Your task to perform on an android device: When is my next meeting? Image 0: 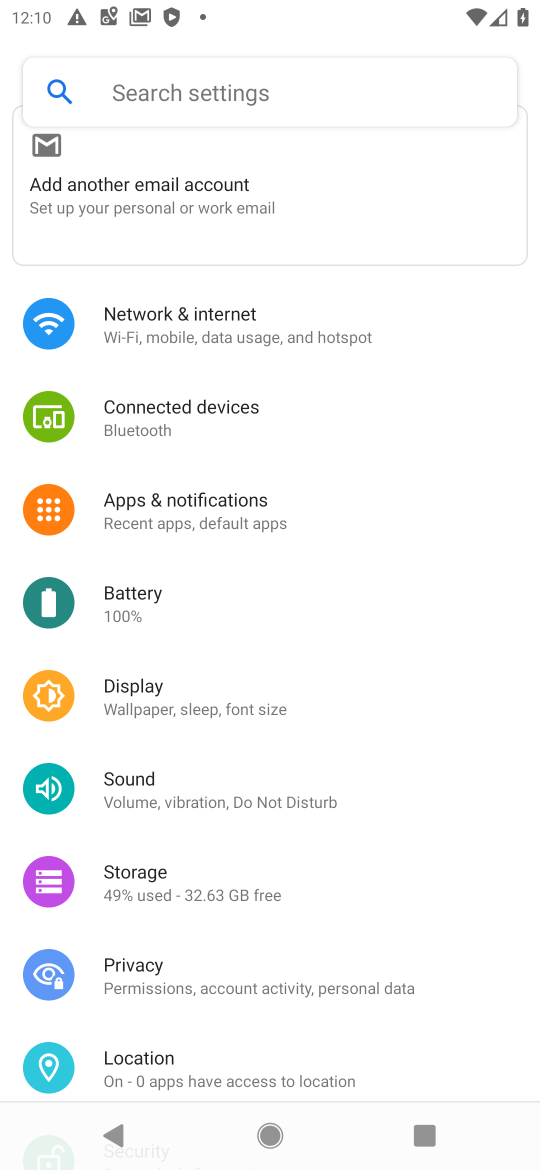
Step 0: press home button
Your task to perform on an android device: When is my next meeting? Image 1: 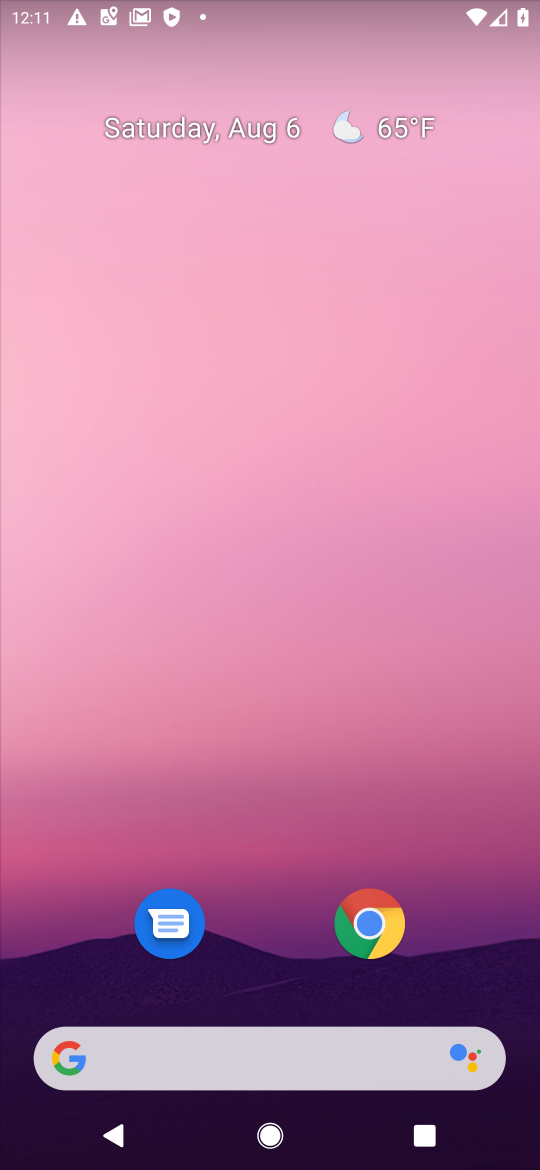
Step 1: drag from (357, 1019) to (355, 868)
Your task to perform on an android device: When is my next meeting? Image 2: 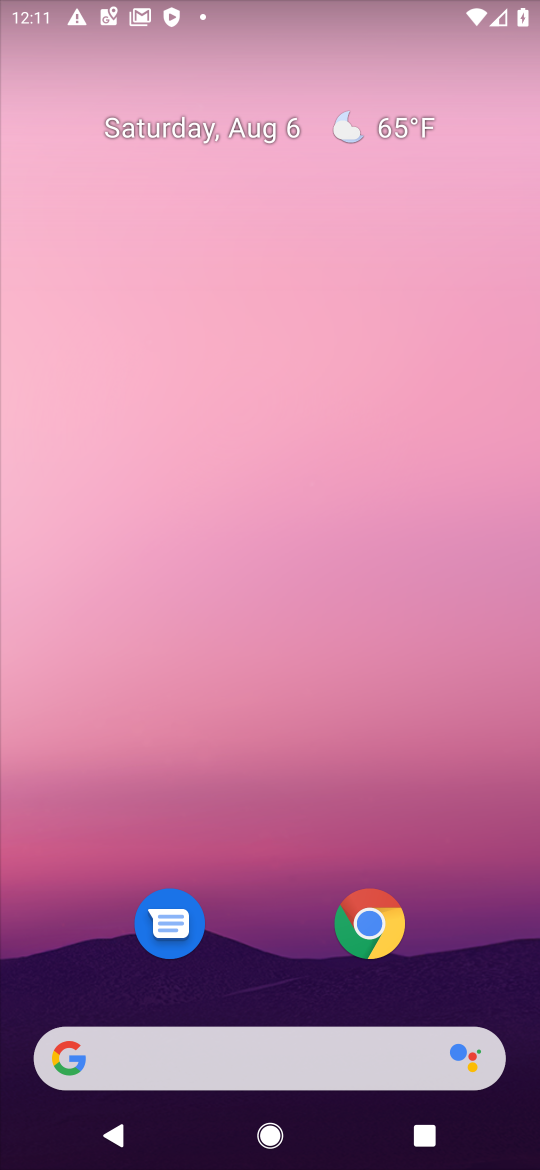
Step 2: drag from (332, 1050) to (365, 471)
Your task to perform on an android device: When is my next meeting? Image 3: 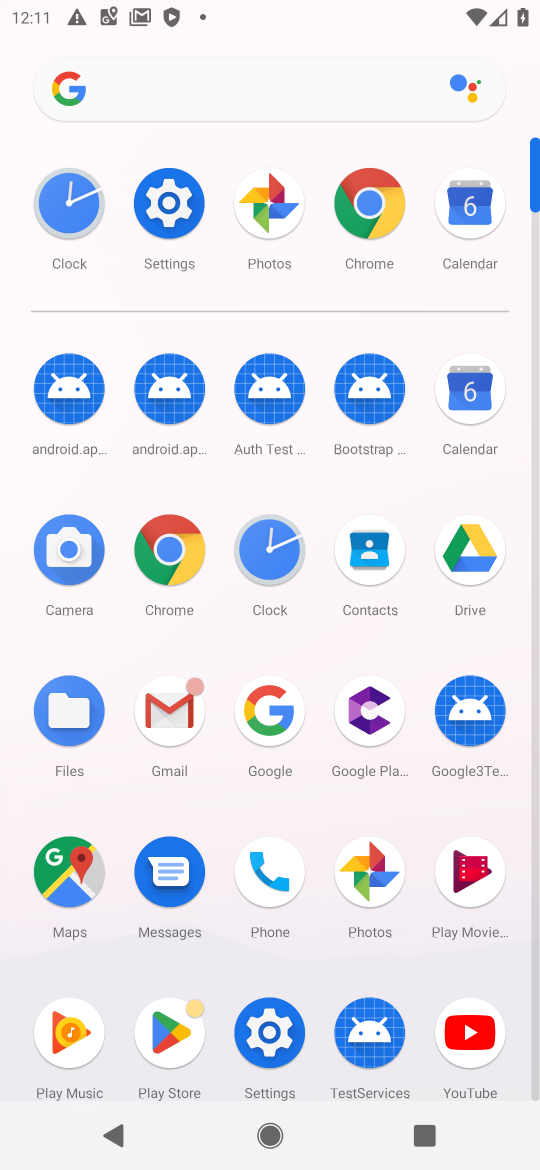
Step 3: click (192, 557)
Your task to perform on an android device: When is my next meeting? Image 4: 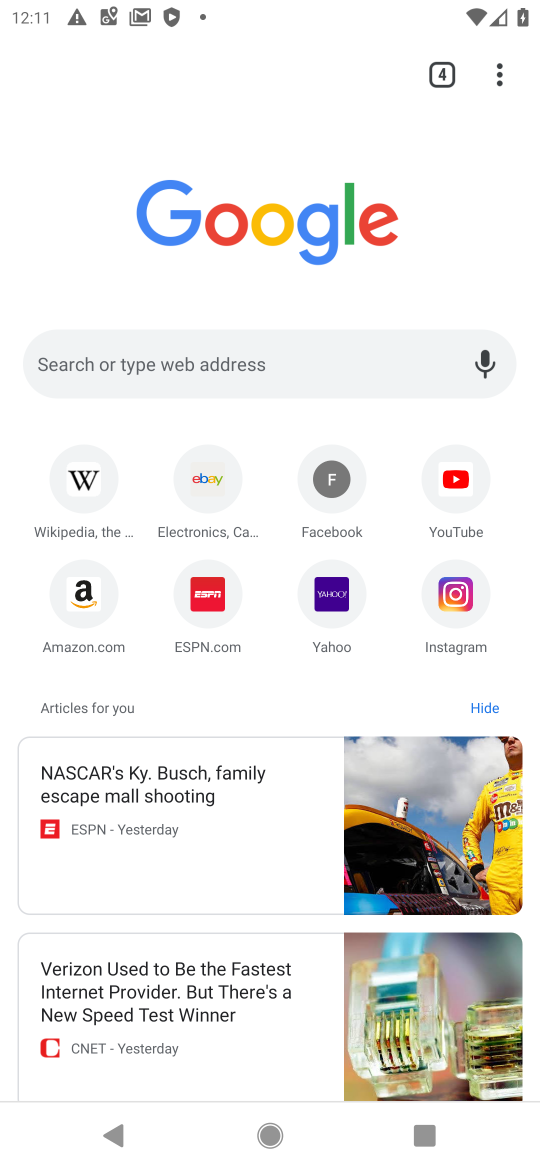
Step 4: press home button
Your task to perform on an android device: When is my next meeting? Image 5: 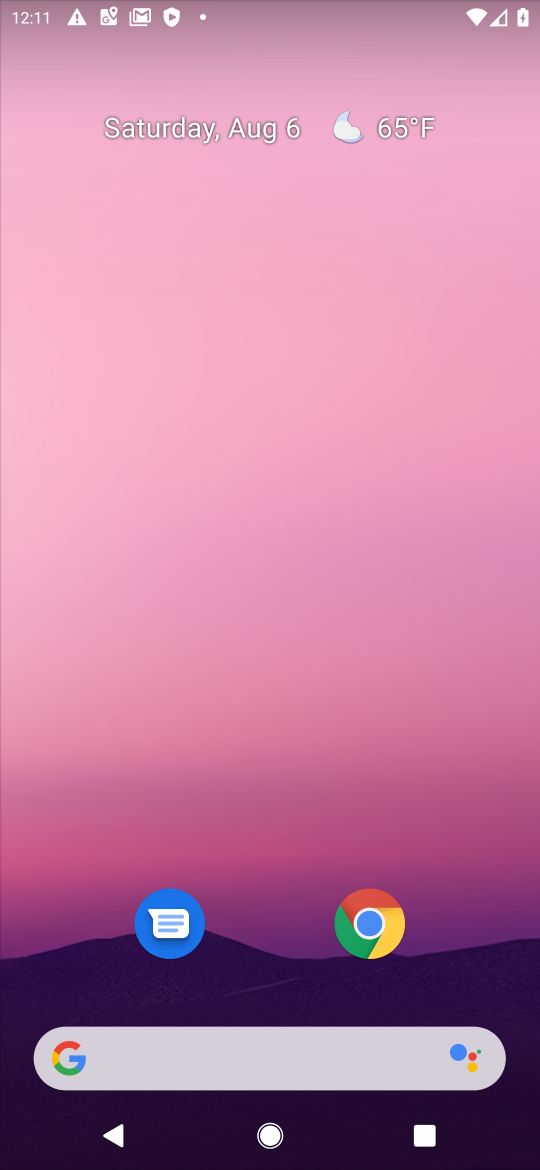
Step 5: drag from (327, 1033) to (395, 151)
Your task to perform on an android device: When is my next meeting? Image 6: 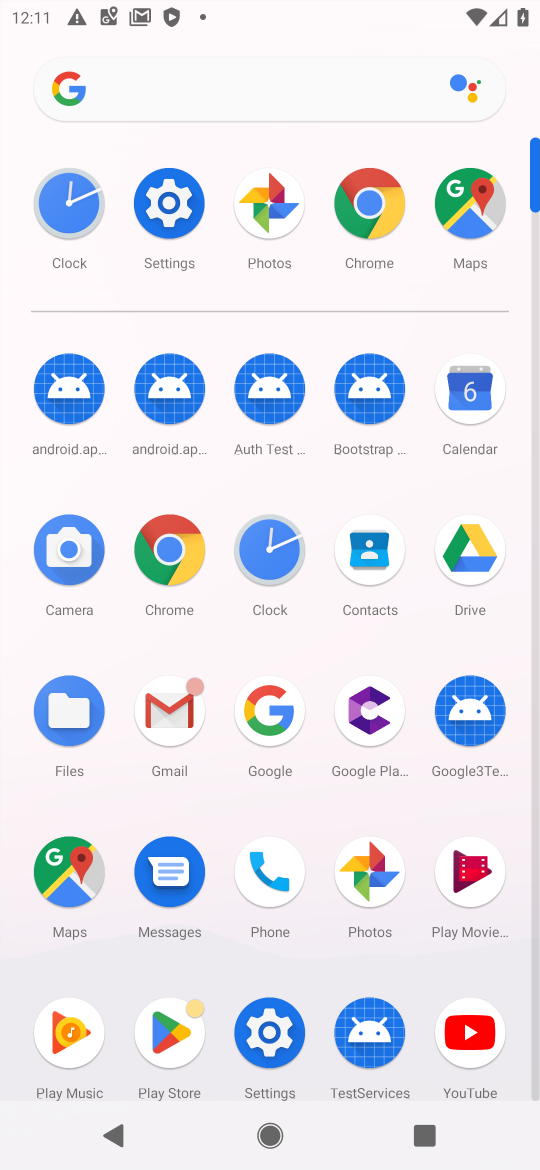
Step 6: click (457, 386)
Your task to perform on an android device: When is my next meeting? Image 7: 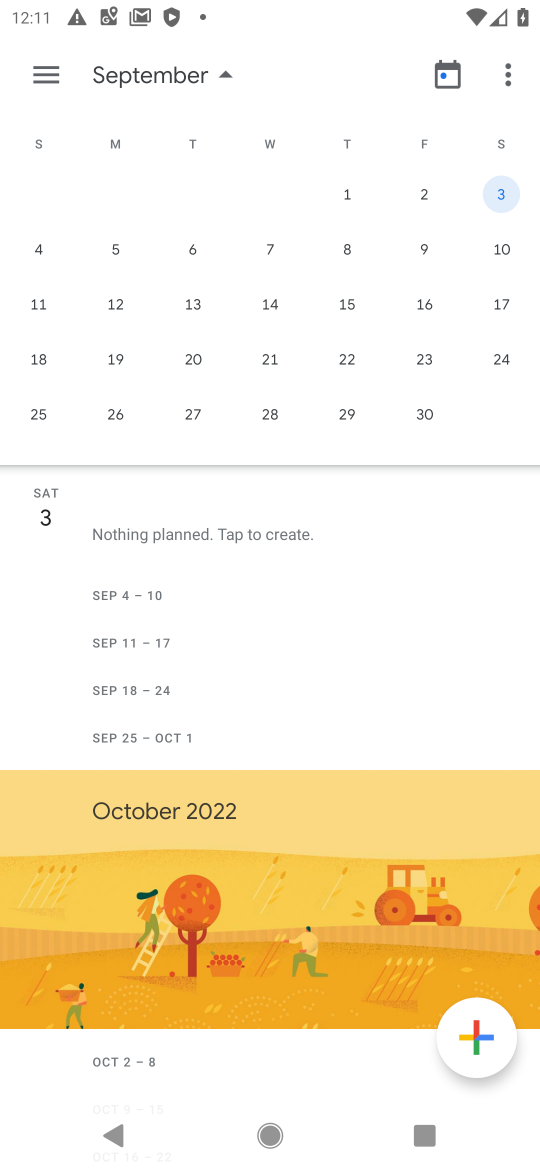
Step 7: click (27, 232)
Your task to perform on an android device: When is my next meeting? Image 8: 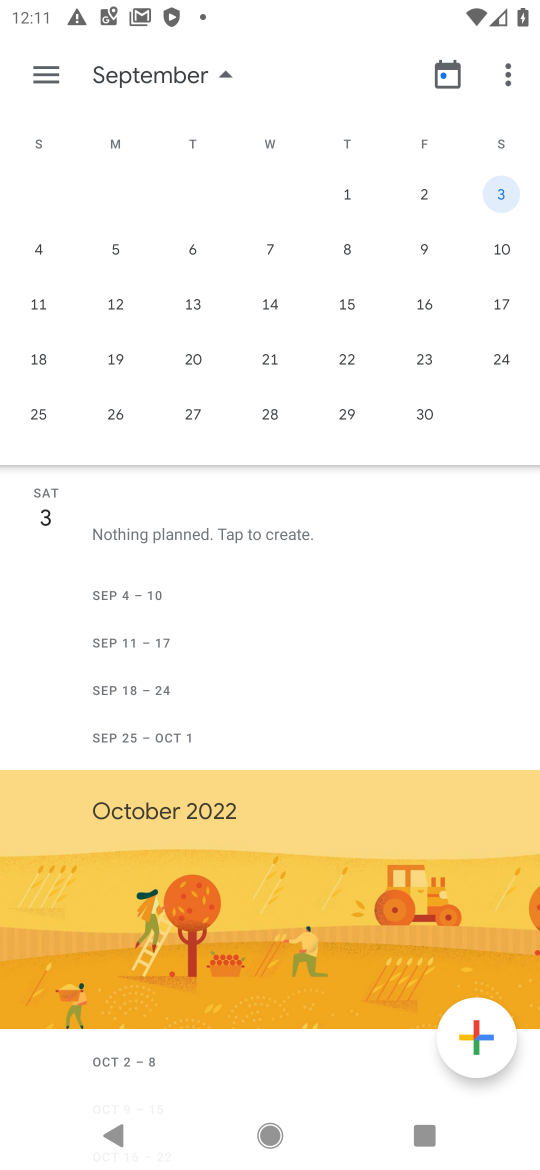
Step 8: click (42, 250)
Your task to perform on an android device: When is my next meeting? Image 9: 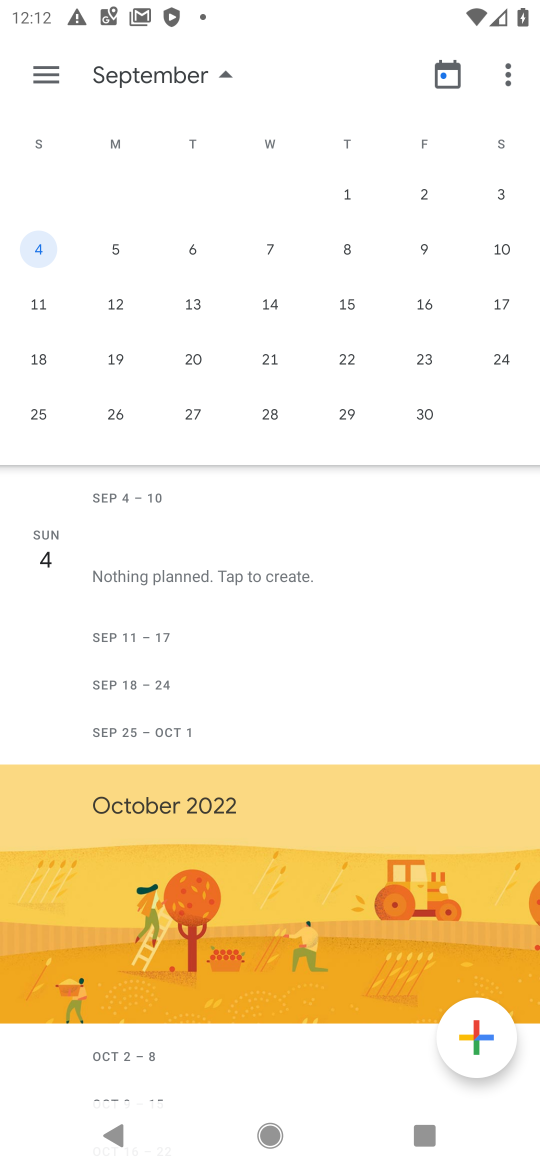
Step 9: press home button
Your task to perform on an android device: When is my next meeting? Image 10: 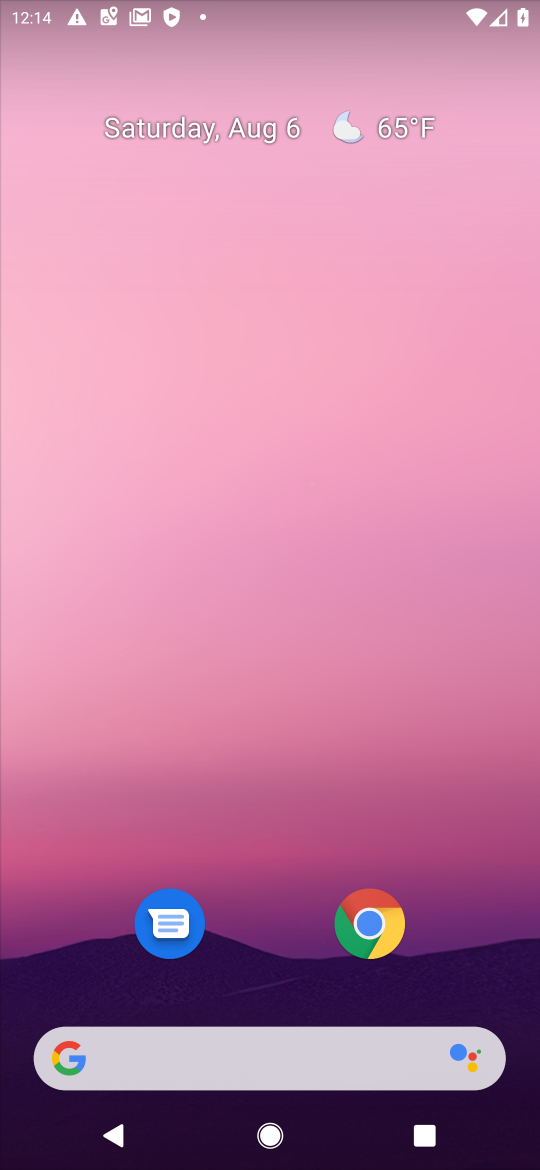
Step 10: drag from (276, 1046) to (254, 15)
Your task to perform on an android device: When is my next meeting? Image 11: 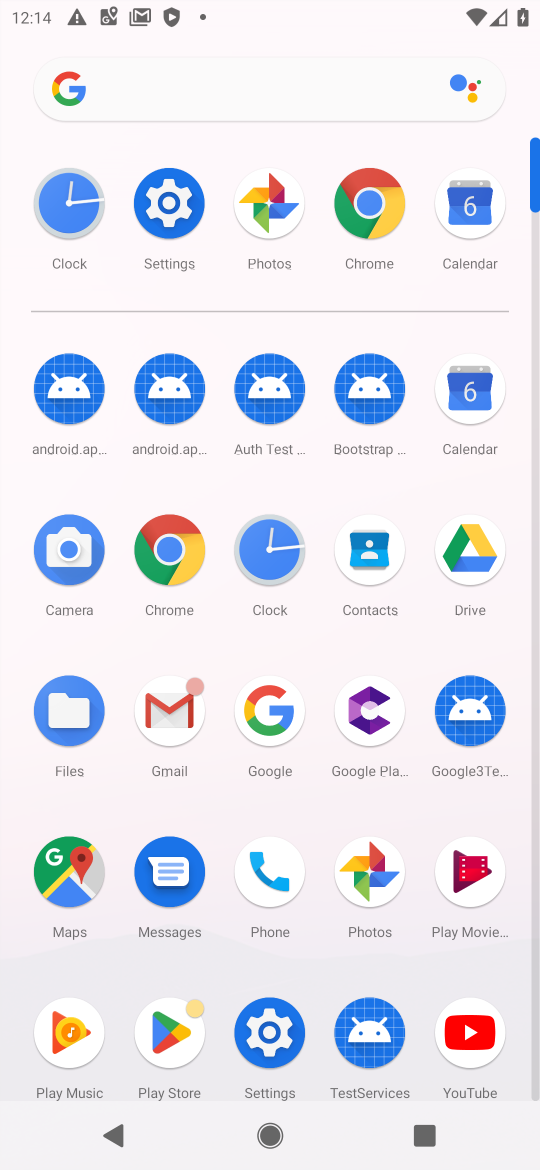
Step 11: click (472, 399)
Your task to perform on an android device: When is my next meeting? Image 12: 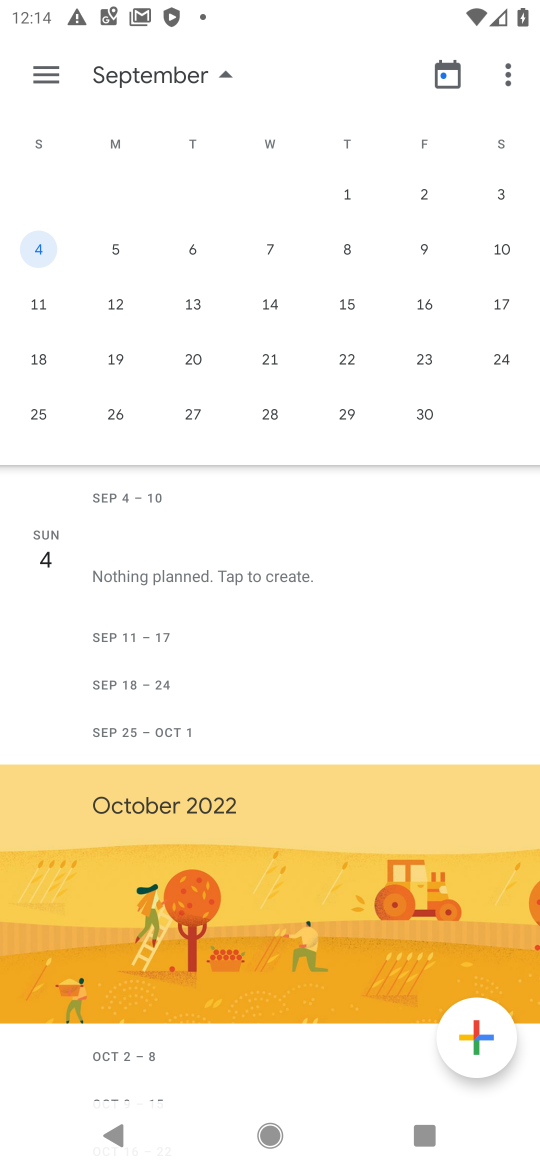
Step 12: click (102, 243)
Your task to perform on an android device: When is my next meeting? Image 13: 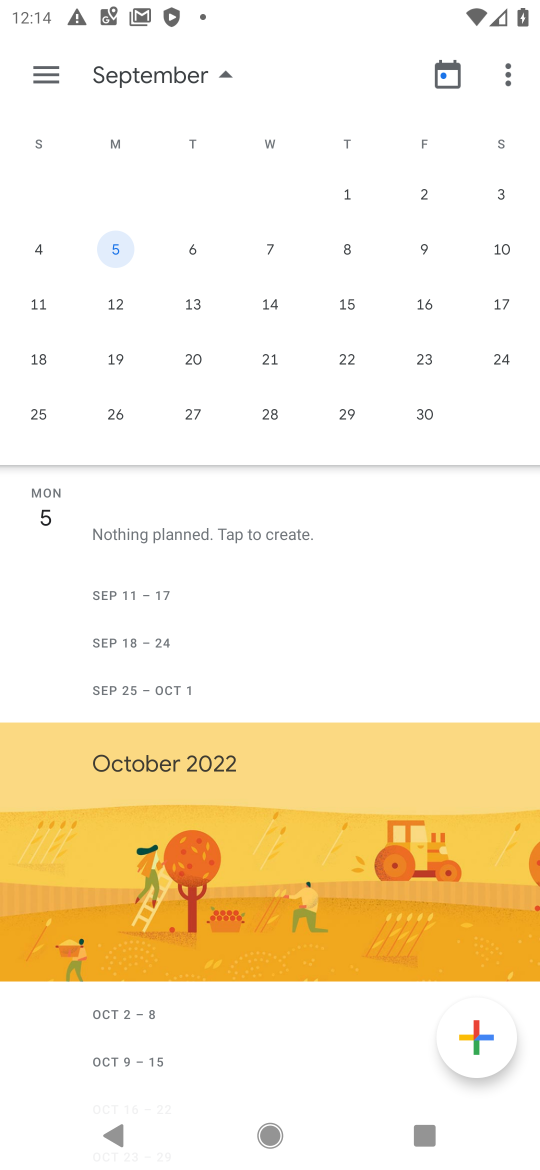
Step 13: task complete